Your task to perform on an android device: turn vacation reply on in the gmail app Image 0: 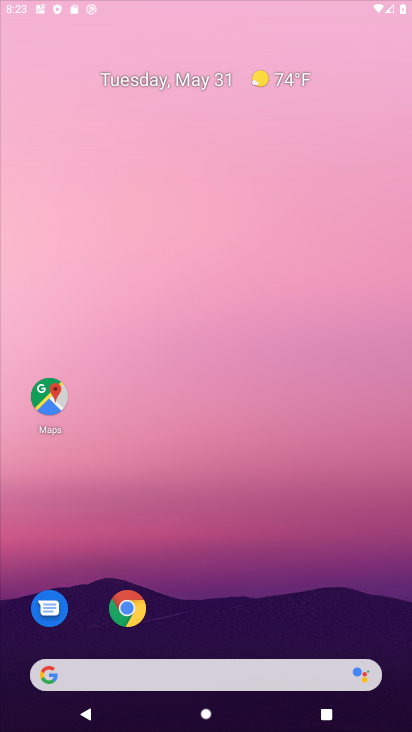
Step 0: click (375, 555)
Your task to perform on an android device: turn vacation reply on in the gmail app Image 1: 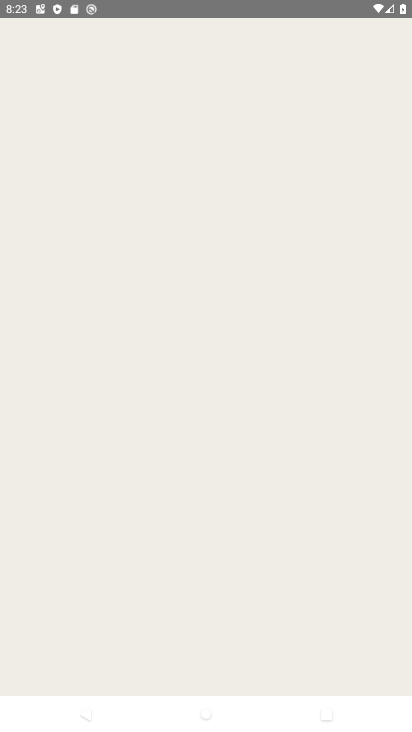
Step 1: press home button
Your task to perform on an android device: turn vacation reply on in the gmail app Image 2: 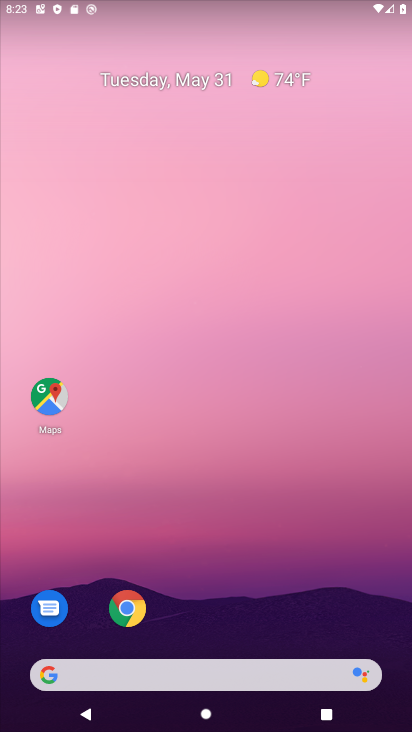
Step 2: drag from (180, 632) to (128, 207)
Your task to perform on an android device: turn vacation reply on in the gmail app Image 3: 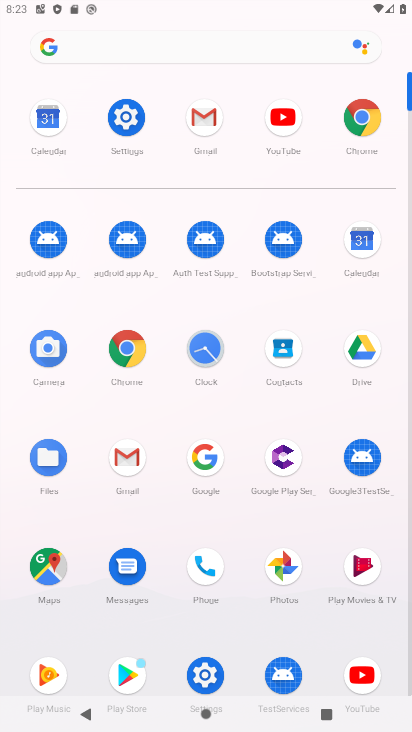
Step 3: click (131, 471)
Your task to perform on an android device: turn vacation reply on in the gmail app Image 4: 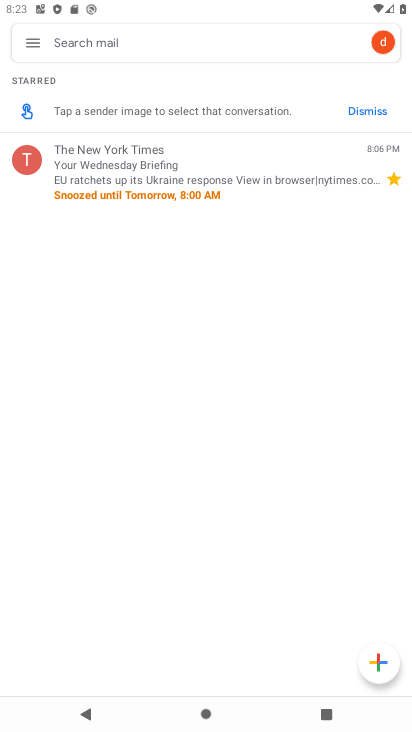
Step 4: click (31, 54)
Your task to perform on an android device: turn vacation reply on in the gmail app Image 5: 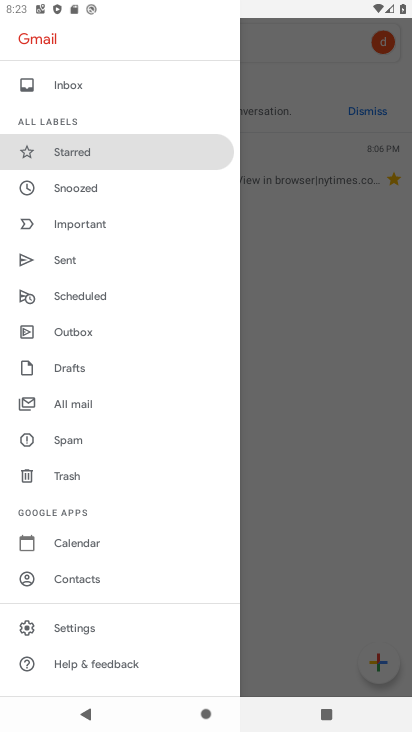
Step 5: click (73, 621)
Your task to perform on an android device: turn vacation reply on in the gmail app Image 6: 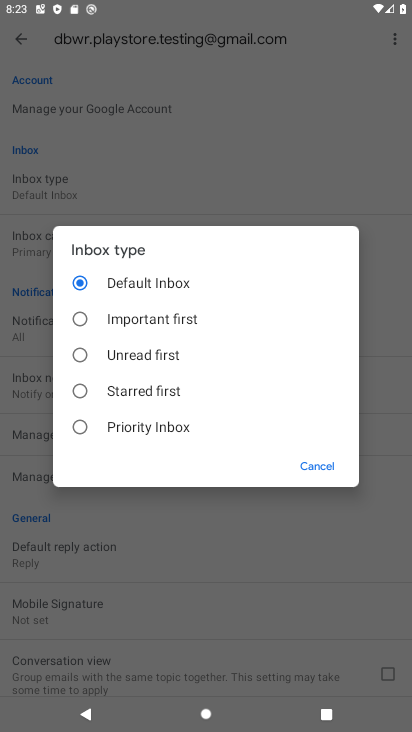
Step 6: click (316, 460)
Your task to perform on an android device: turn vacation reply on in the gmail app Image 7: 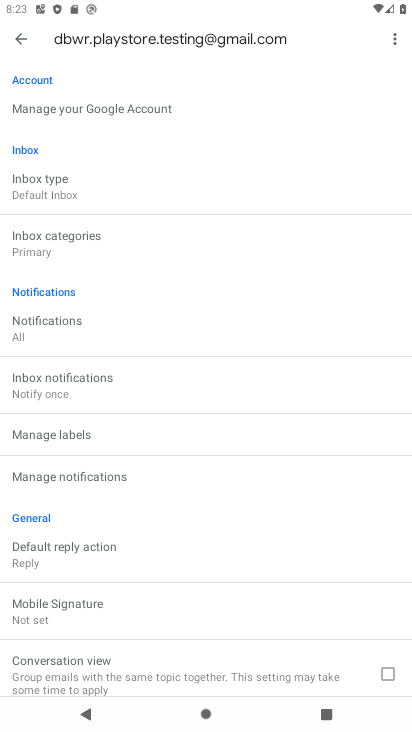
Step 7: drag from (143, 585) to (119, 326)
Your task to perform on an android device: turn vacation reply on in the gmail app Image 8: 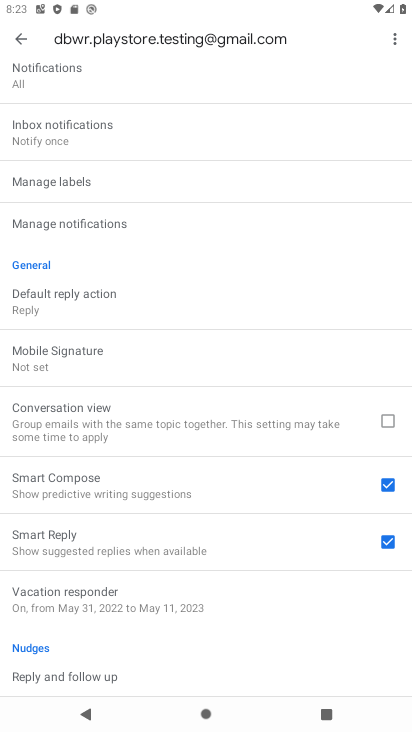
Step 8: click (93, 590)
Your task to perform on an android device: turn vacation reply on in the gmail app Image 9: 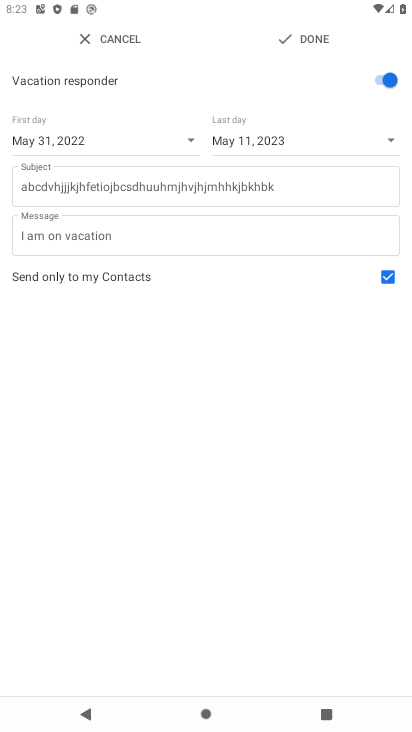
Step 9: click (310, 34)
Your task to perform on an android device: turn vacation reply on in the gmail app Image 10: 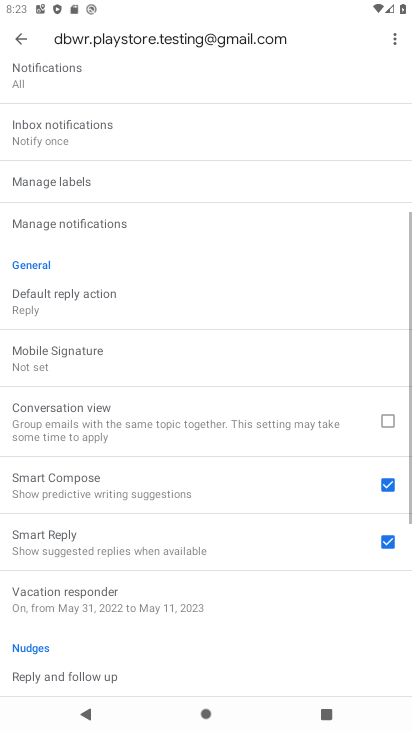
Step 10: task complete